Your task to perform on an android device: Open privacy settings Image 0: 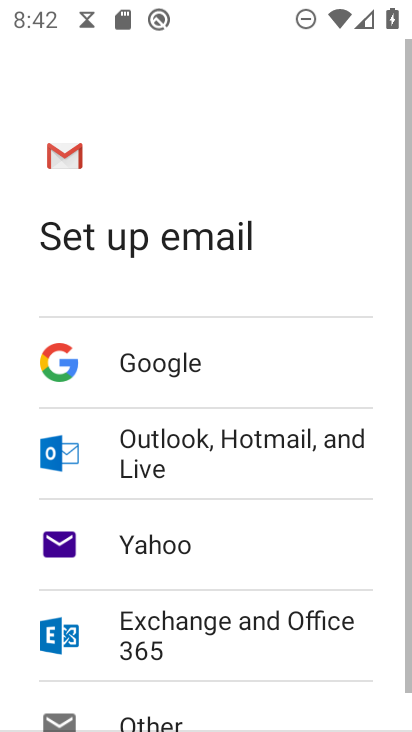
Step 0: press home button
Your task to perform on an android device: Open privacy settings Image 1: 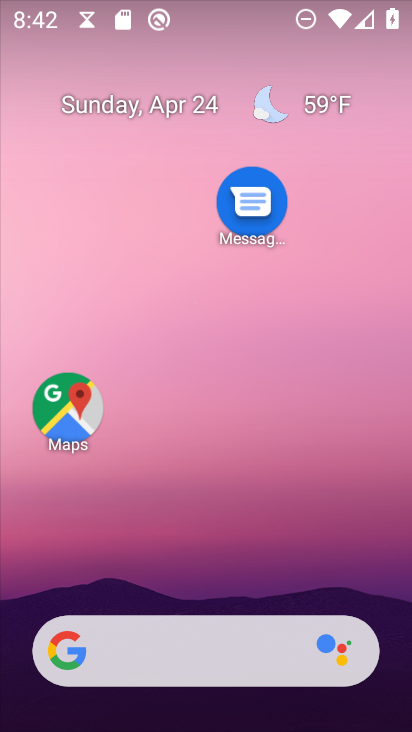
Step 1: drag from (180, 625) to (266, 99)
Your task to perform on an android device: Open privacy settings Image 2: 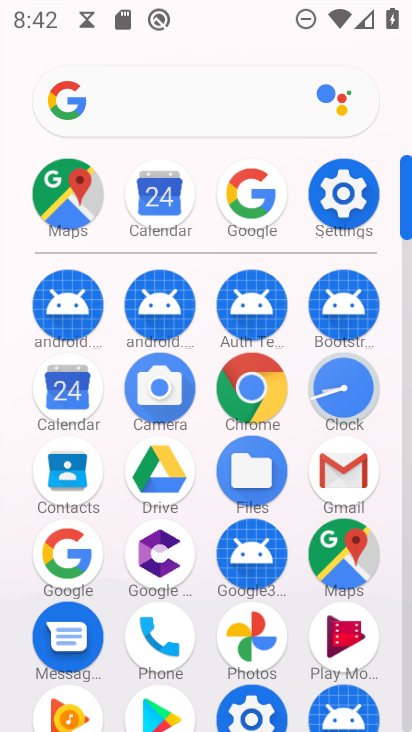
Step 2: click (335, 202)
Your task to perform on an android device: Open privacy settings Image 3: 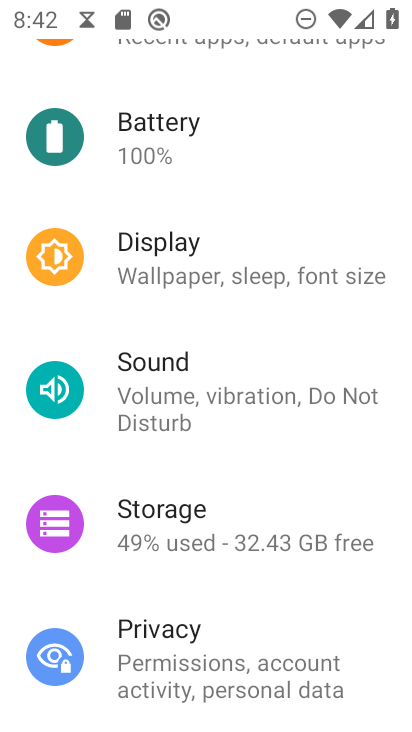
Step 3: click (191, 628)
Your task to perform on an android device: Open privacy settings Image 4: 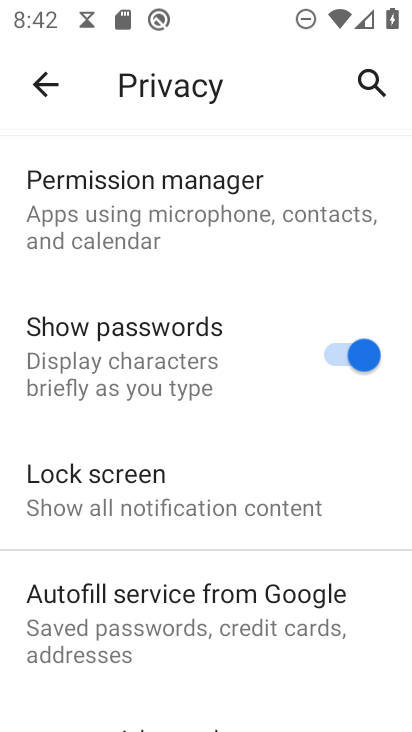
Step 4: task complete